Your task to perform on an android device: Go to Amazon Image 0: 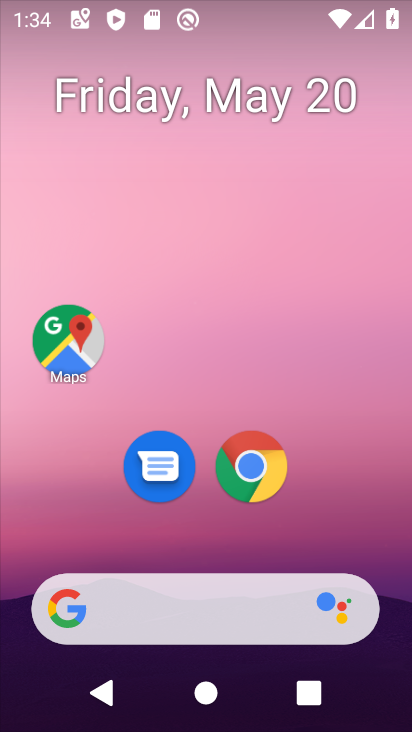
Step 0: click (254, 458)
Your task to perform on an android device: Go to Amazon Image 1: 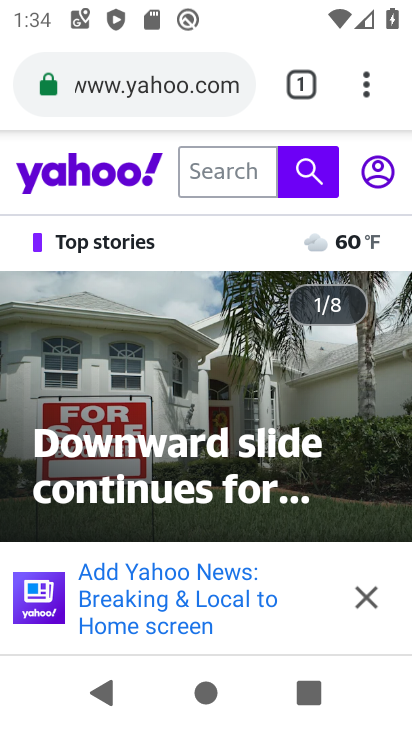
Step 1: click (306, 86)
Your task to perform on an android device: Go to Amazon Image 2: 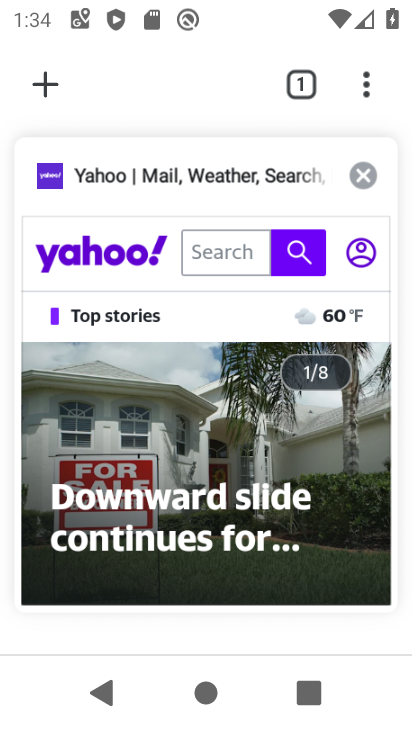
Step 2: click (45, 96)
Your task to perform on an android device: Go to Amazon Image 3: 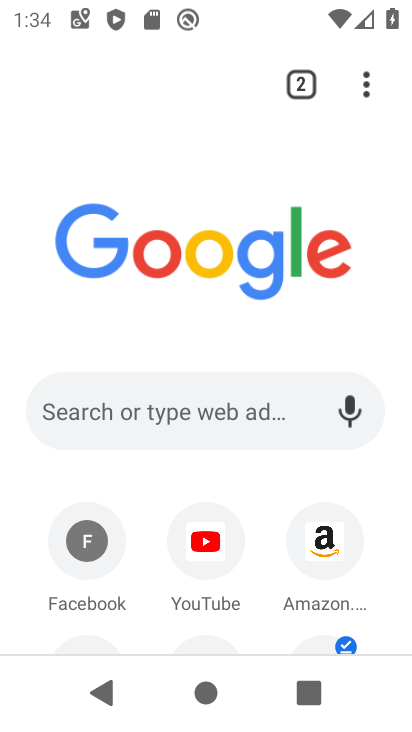
Step 3: click (320, 546)
Your task to perform on an android device: Go to Amazon Image 4: 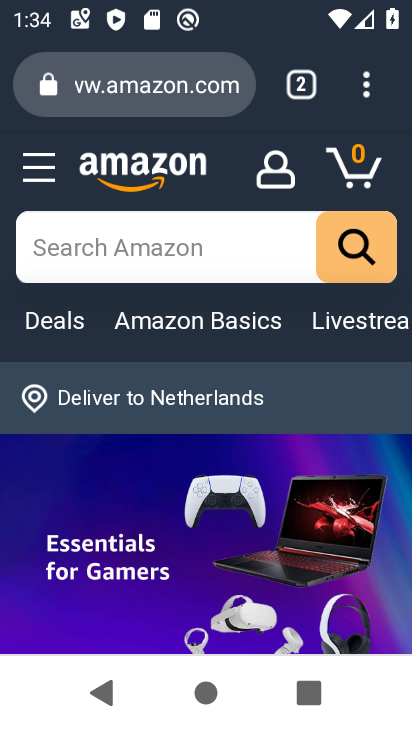
Step 4: task complete